Your task to perform on an android device: change the clock style Image 0: 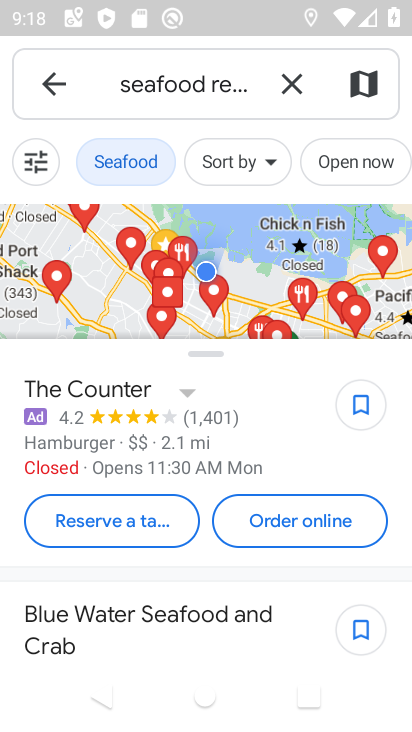
Step 0: press home button
Your task to perform on an android device: change the clock style Image 1: 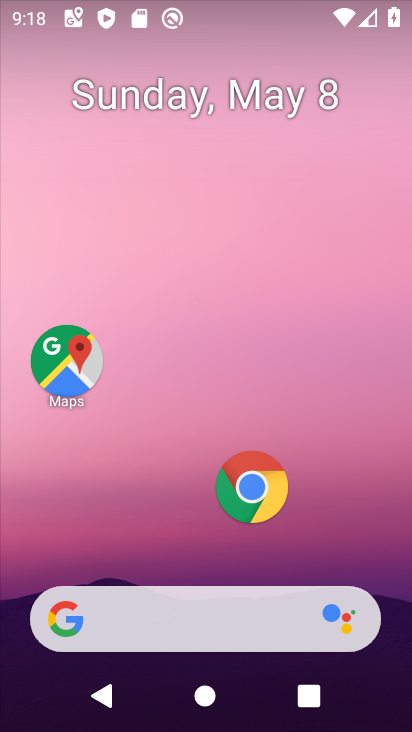
Step 1: drag from (170, 522) to (148, 24)
Your task to perform on an android device: change the clock style Image 2: 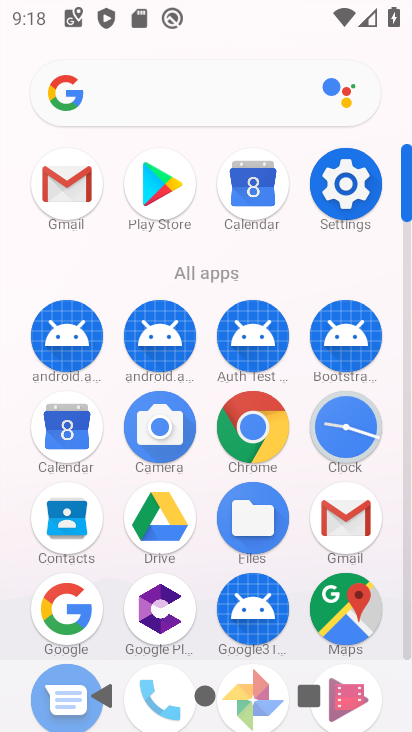
Step 2: click (341, 447)
Your task to perform on an android device: change the clock style Image 3: 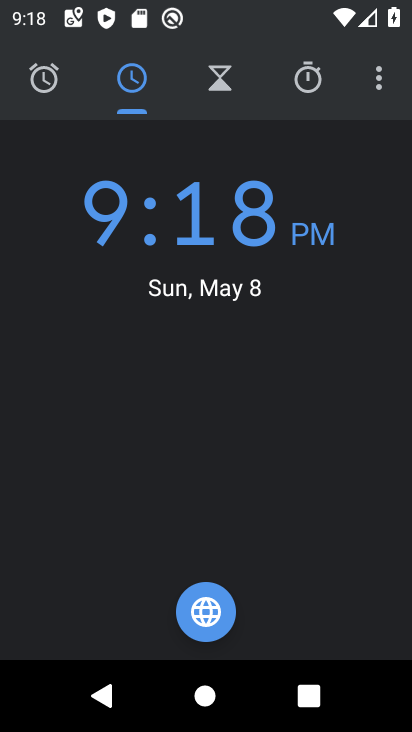
Step 3: click (383, 84)
Your task to perform on an android device: change the clock style Image 4: 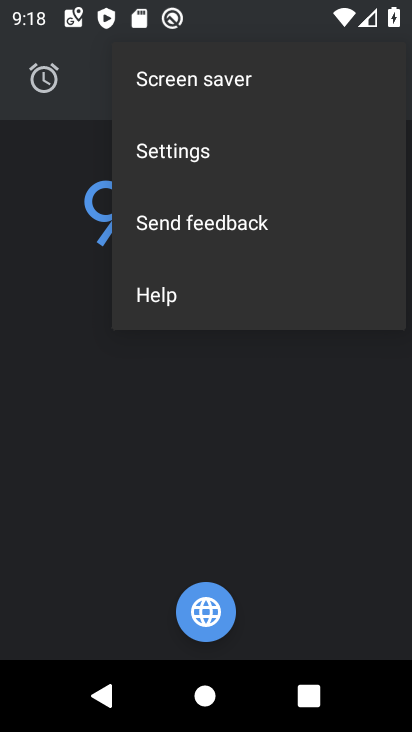
Step 4: click (219, 153)
Your task to perform on an android device: change the clock style Image 5: 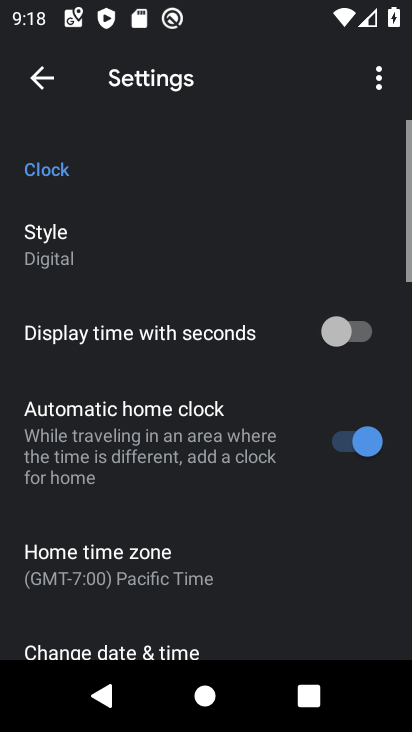
Step 5: click (123, 257)
Your task to perform on an android device: change the clock style Image 6: 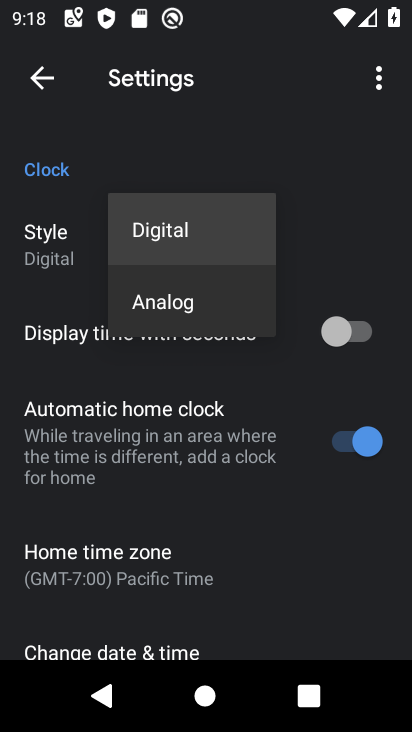
Step 6: click (148, 306)
Your task to perform on an android device: change the clock style Image 7: 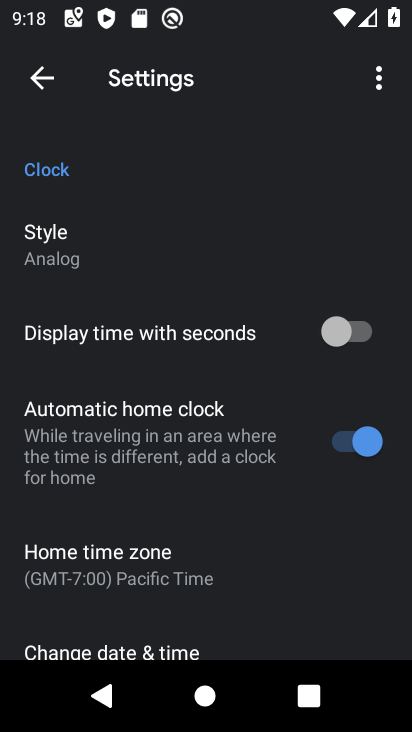
Step 7: task complete